Your task to perform on an android device: clear history in the chrome app Image 0: 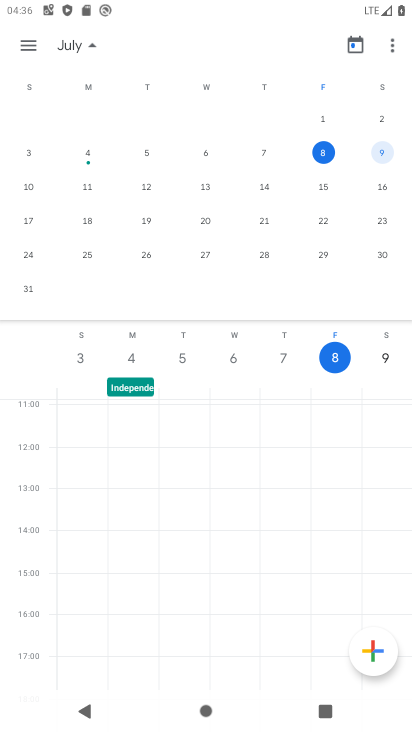
Step 0: press home button
Your task to perform on an android device: clear history in the chrome app Image 1: 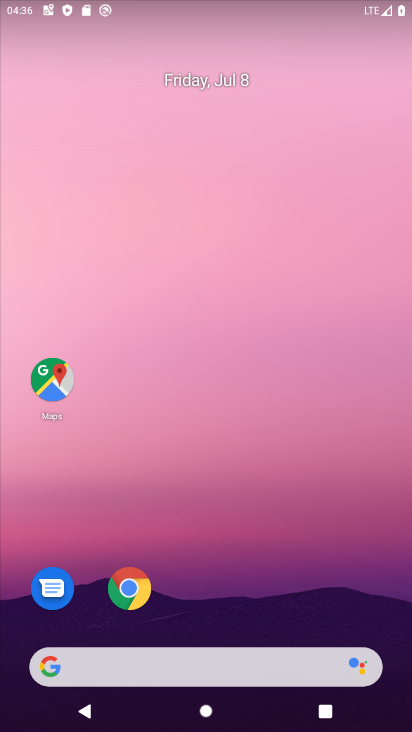
Step 1: click (132, 595)
Your task to perform on an android device: clear history in the chrome app Image 2: 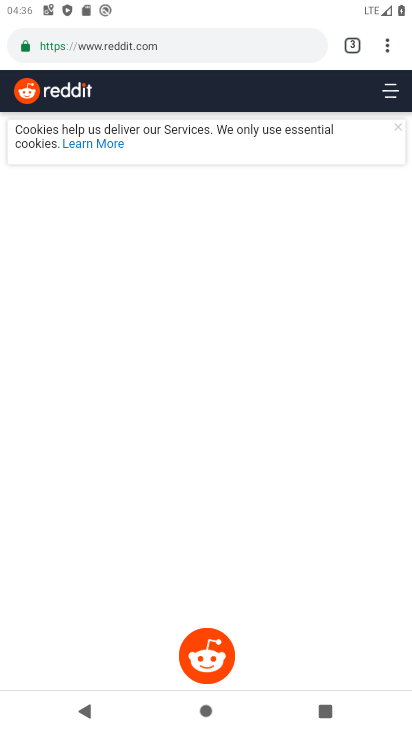
Step 2: click (387, 42)
Your task to perform on an android device: clear history in the chrome app Image 3: 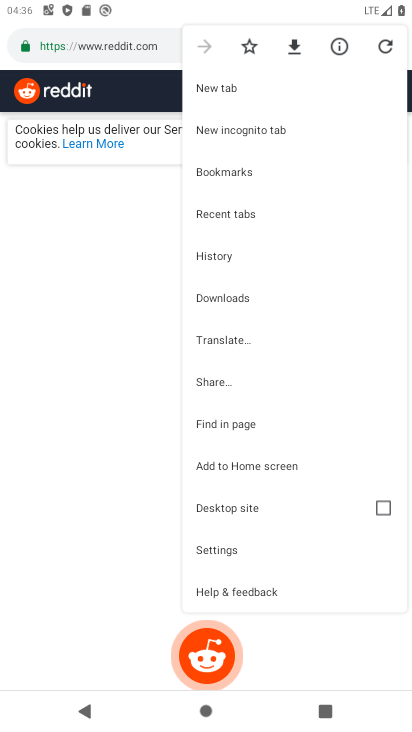
Step 3: click (245, 253)
Your task to perform on an android device: clear history in the chrome app Image 4: 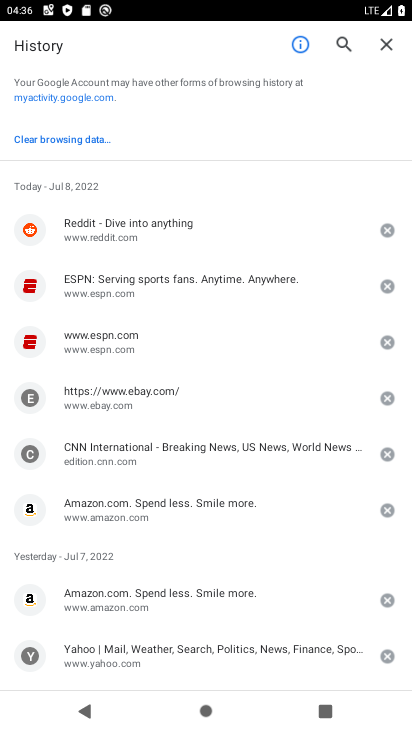
Step 4: click (83, 134)
Your task to perform on an android device: clear history in the chrome app Image 5: 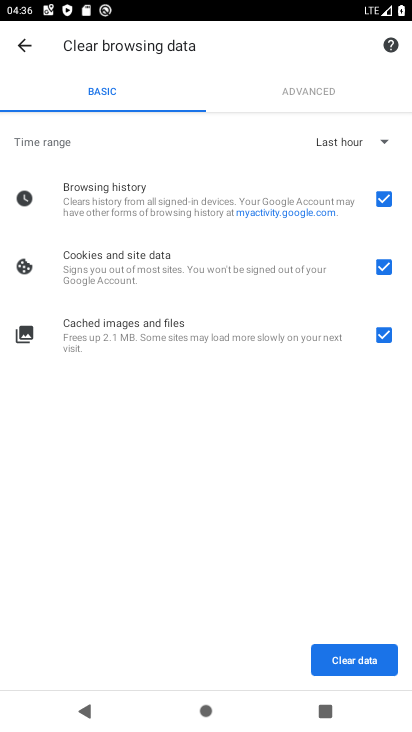
Step 5: click (348, 666)
Your task to perform on an android device: clear history in the chrome app Image 6: 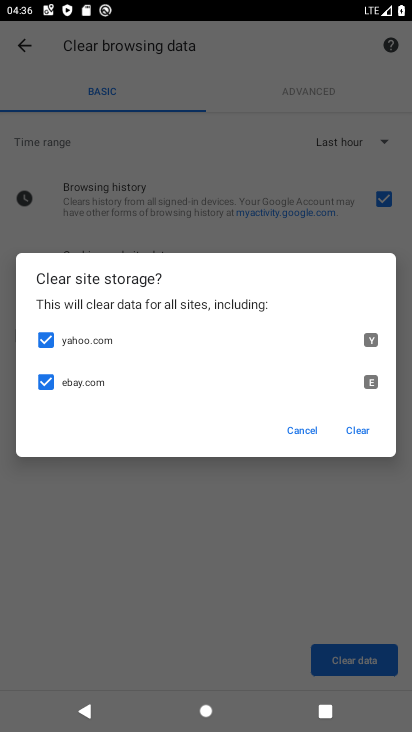
Step 6: click (354, 428)
Your task to perform on an android device: clear history in the chrome app Image 7: 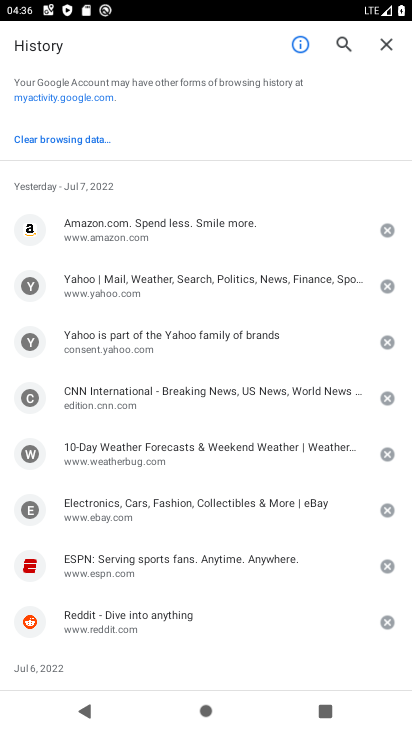
Step 7: task complete